Your task to perform on an android device: Go to Amazon Image 0: 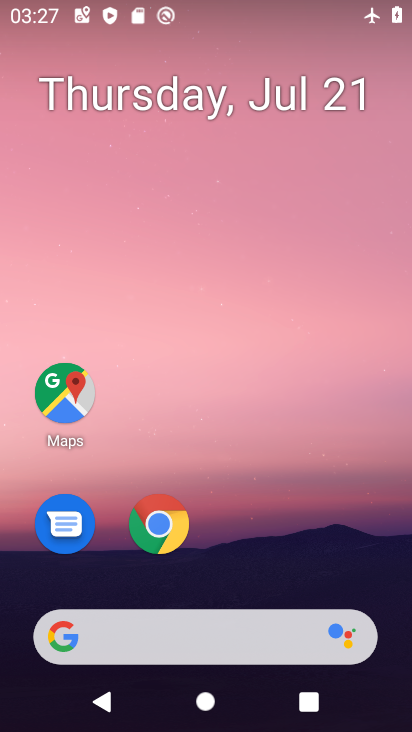
Step 0: click (178, 522)
Your task to perform on an android device: Go to Amazon Image 1: 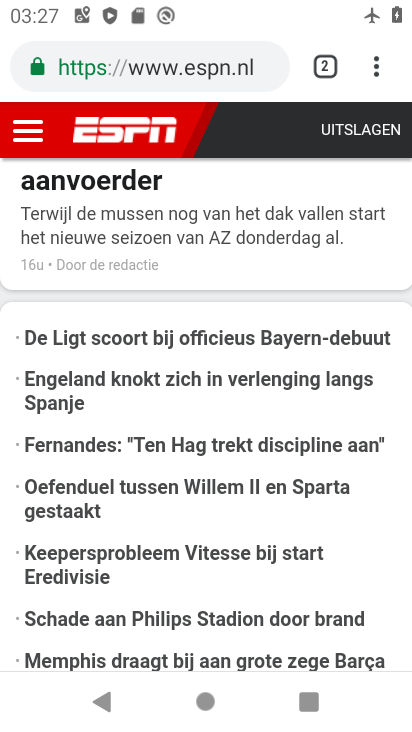
Step 1: click (375, 70)
Your task to perform on an android device: Go to Amazon Image 2: 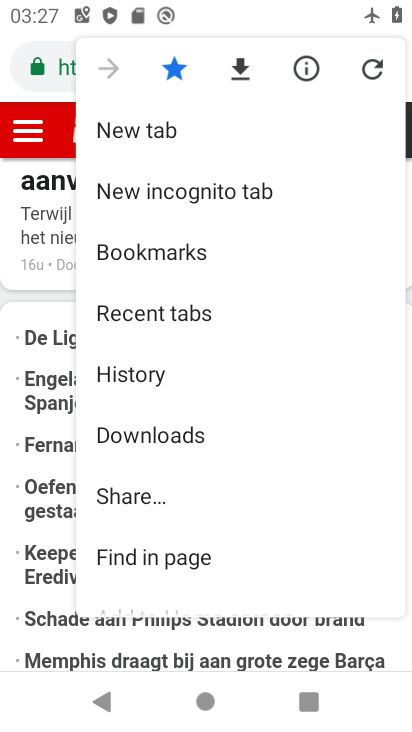
Step 2: click (293, 125)
Your task to perform on an android device: Go to Amazon Image 3: 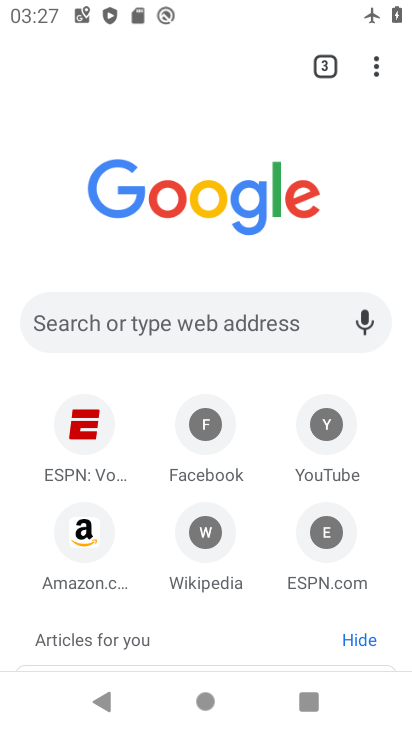
Step 3: click (89, 532)
Your task to perform on an android device: Go to Amazon Image 4: 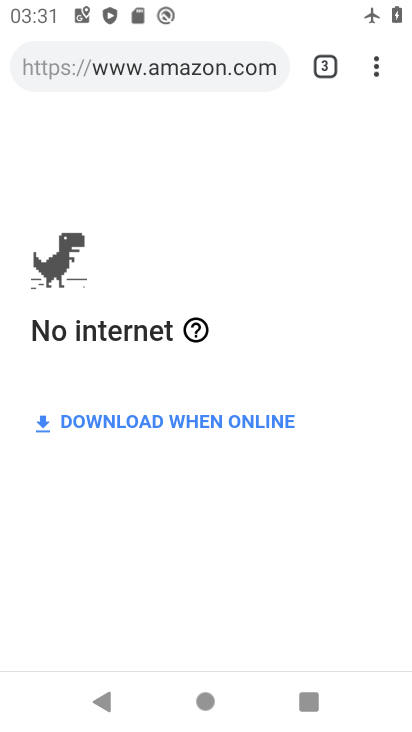
Step 4: task complete